Your task to perform on an android device: Go to accessibility settings Image 0: 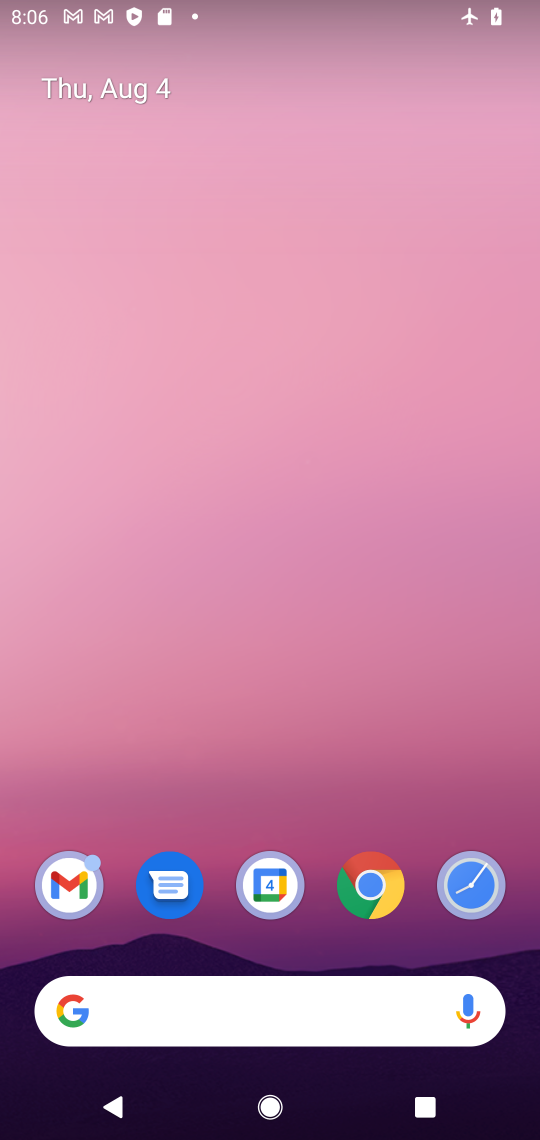
Step 0: press home button
Your task to perform on an android device: Go to accessibility settings Image 1: 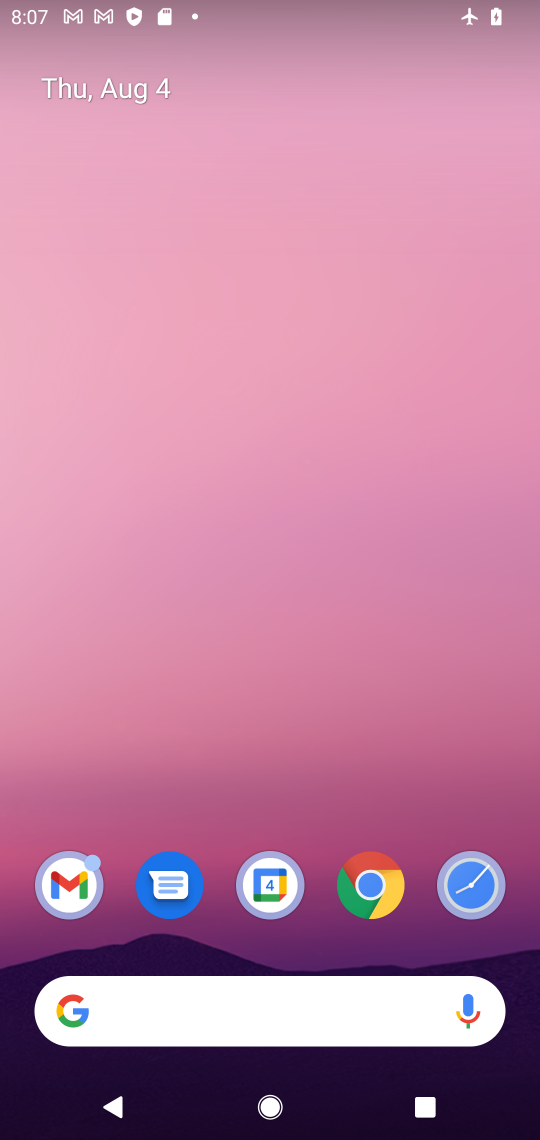
Step 1: drag from (305, 939) to (365, 35)
Your task to perform on an android device: Go to accessibility settings Image 2: 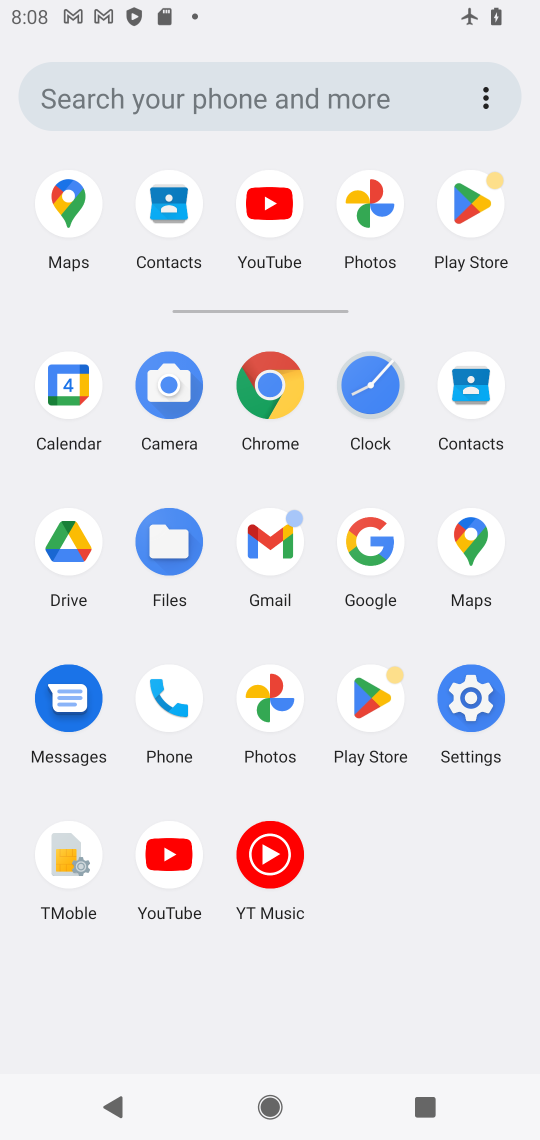
Step 2: click (500, 691)
Your task to perform on an android device: Go to accessibility settings Image 3: 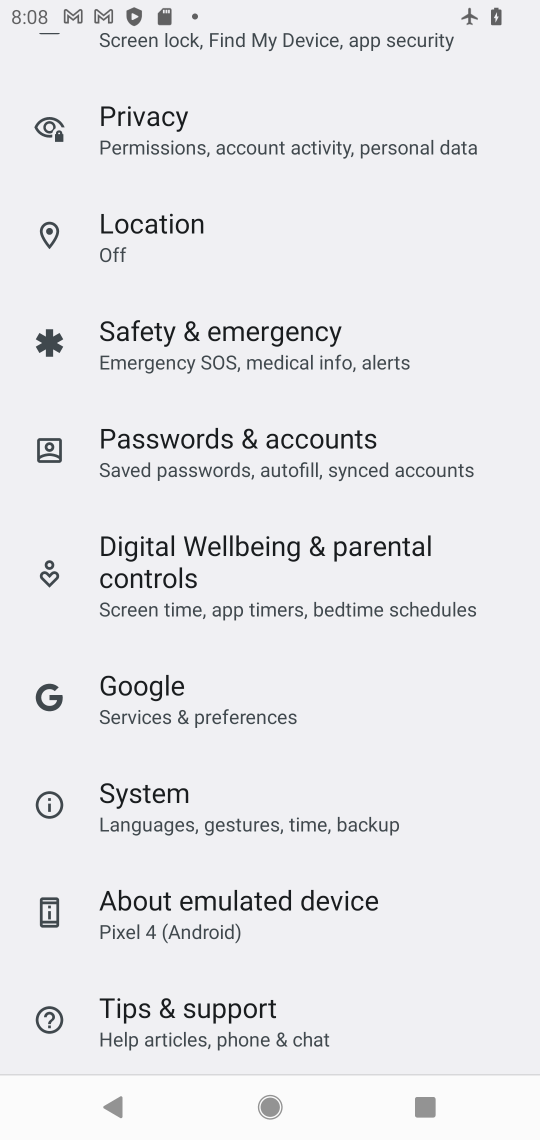
Step 3: drag from (171, 943) to (240, 480)
Your task to perform on an android device: Go to accessibility settings Image 4: 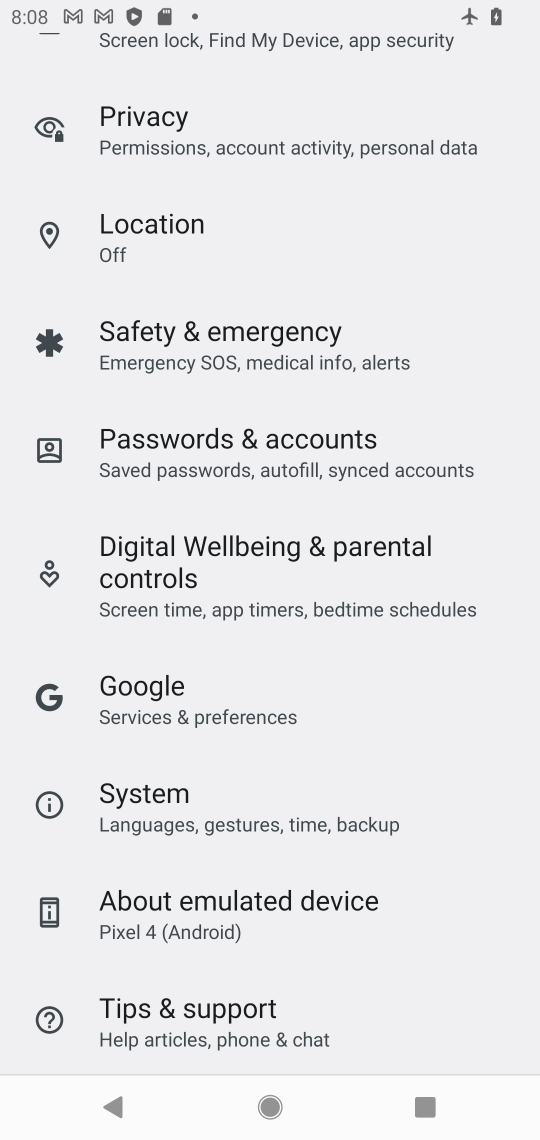
Step 4: drag from (271, 261) to (268, 964)
Your task to perform on an android device: Go to accessibility settings Image 5: 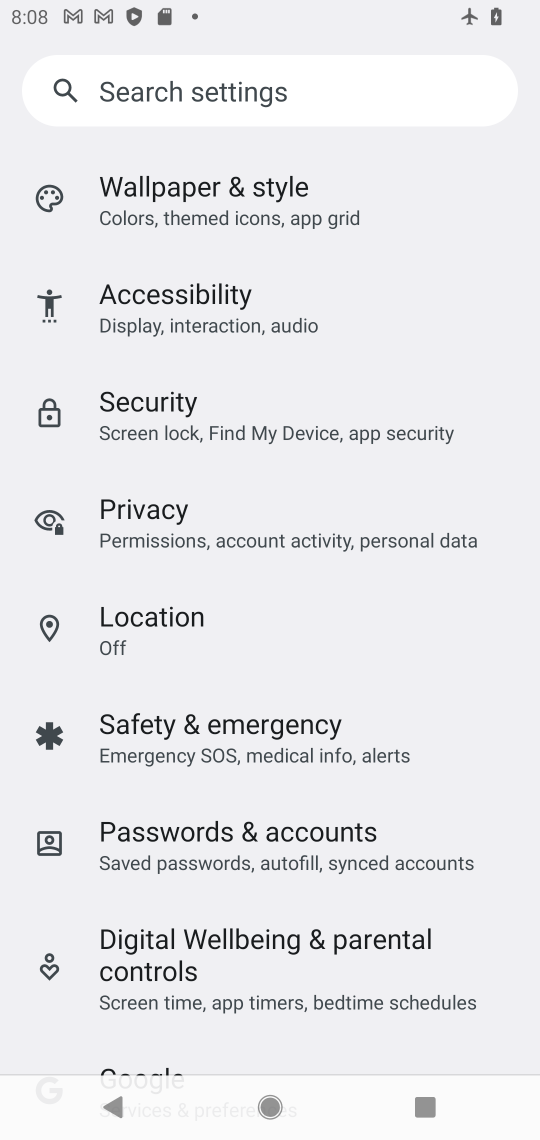
Step 5: click (193, 334)
Your task to perform on an android device: Go to accessibility settings Image 6: 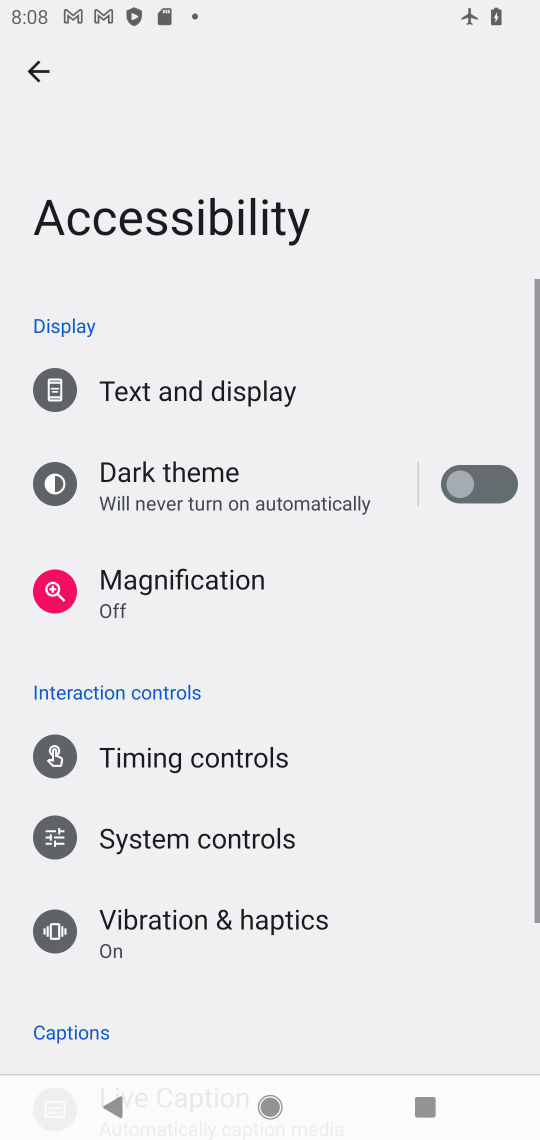
Step 6: task complete